Your task to perform on an android device: Open Google Maps Image 0: 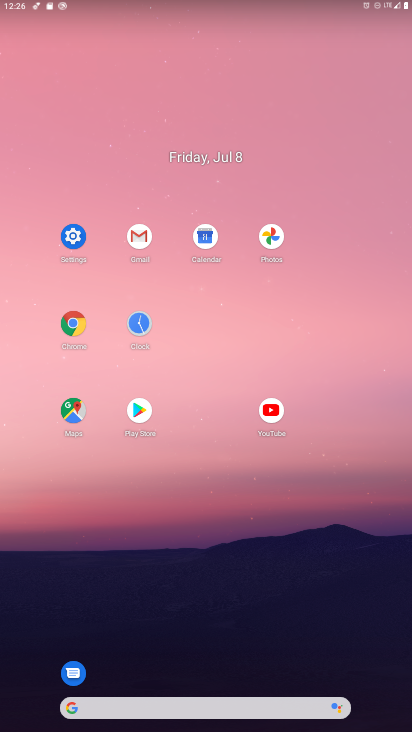
Step 0: click (74, 404)
Your task to perform on an android device: Open Google Maps Image 1: 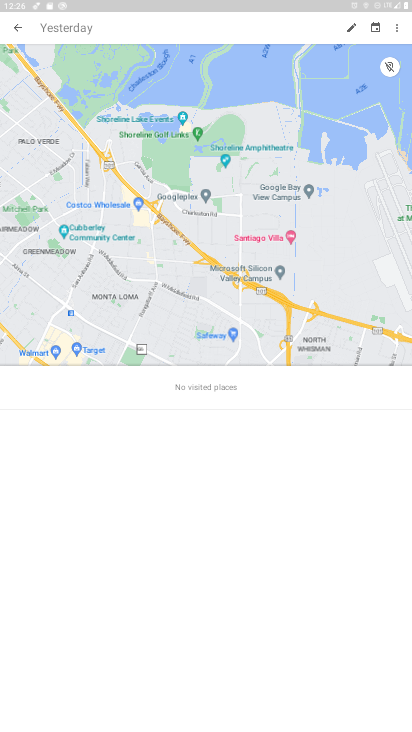
Step 1: task complete